Your task to perform on an android device: Open network settings Image 0: 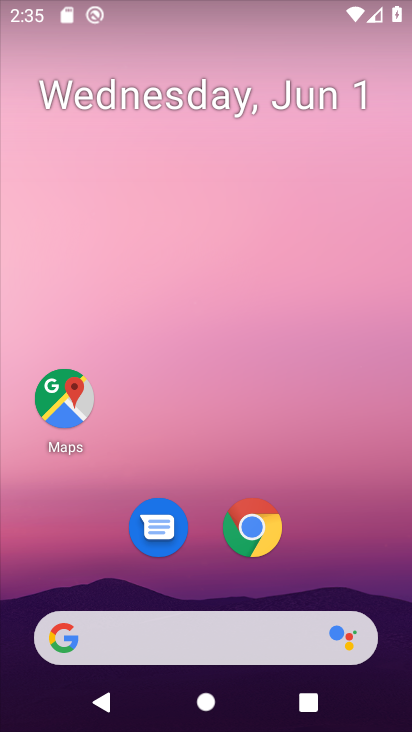
Step 0: drag from (218, 592) to (268, 19)
Your task to perform on an android device: Open network settings Image 1: 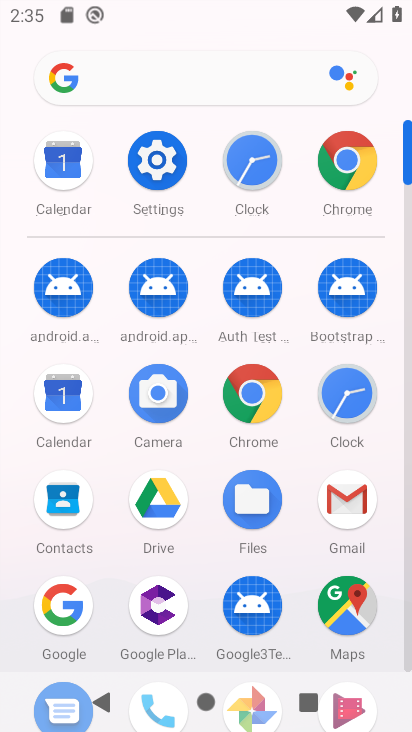
Step 1: click (155, 188)
Your task to perform on an android device: Open network settings Image 2: 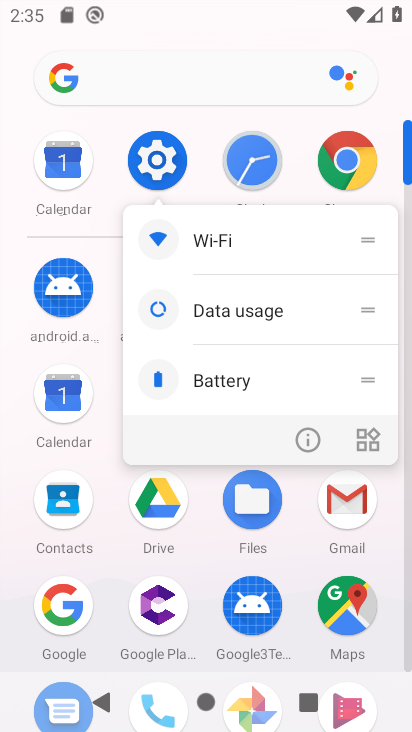
Step 2: click (148, 175)
Your task to perform on an android device: Open network settings Image 3: 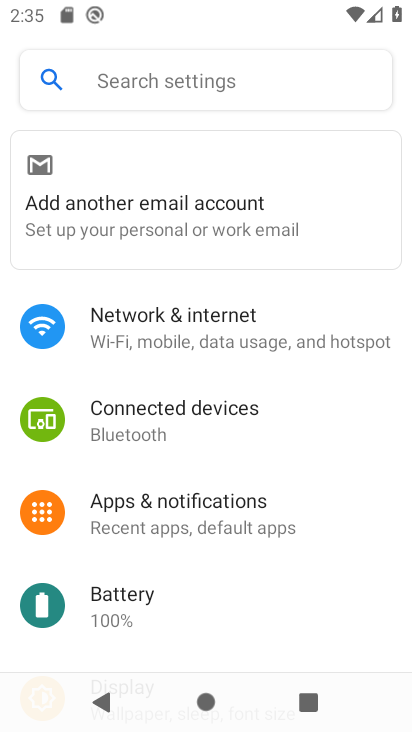
Step 3: click (223, 330)
Your task to perform on an android device: Open network settings Image 4: 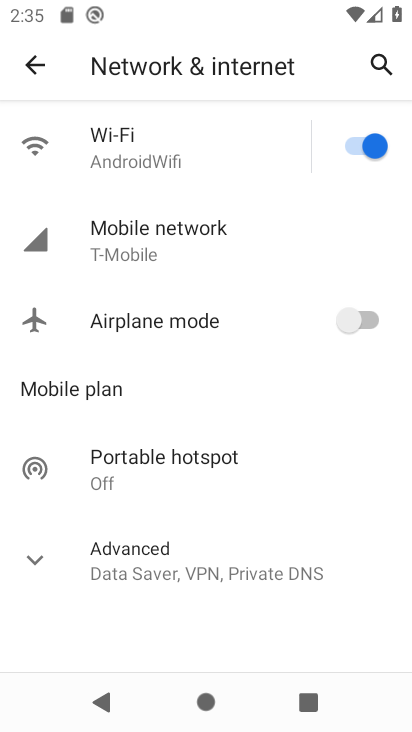
Step 4: task complete